Your task to perform on an android device: allow notifications from all sites in the chrome app Image 0: 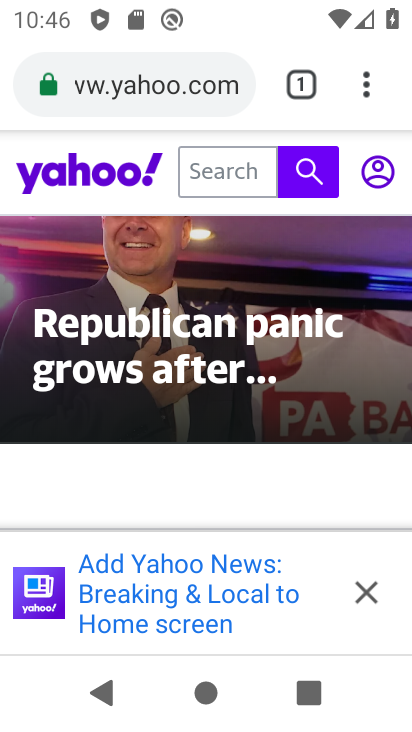
Step 0: press home button
Your task to perform on an android device: allow notifications from all sites in the chrome app Image 1: 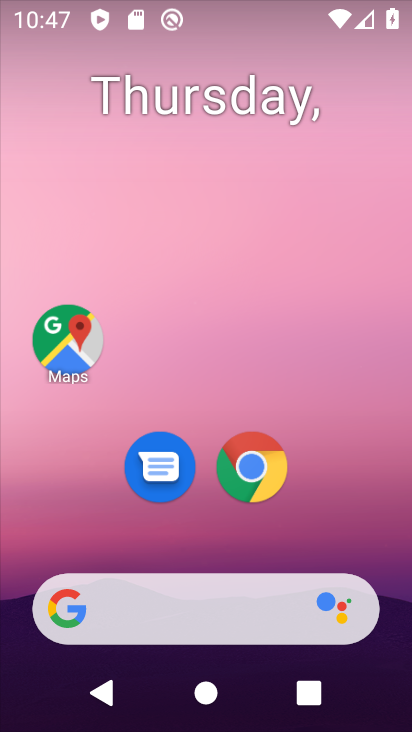
Step 1: click (257, 472)
Your task to perform on an android device: allow notifications from all sites in the chrome app Image 2: 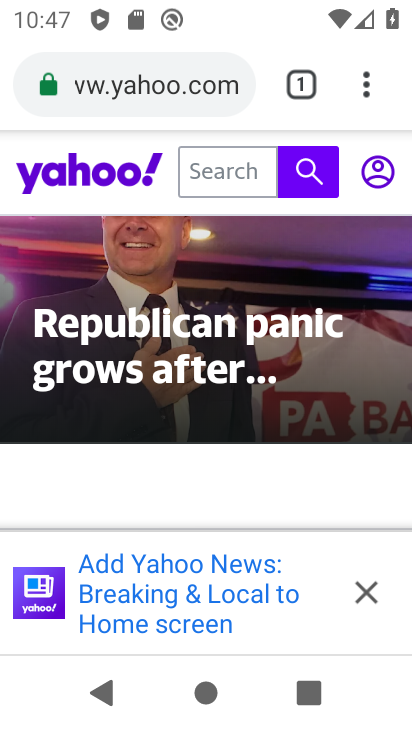
Step 2: click (365, 84)
Your task to perform on an android device: allow notifications from all sites in the chrome app Image 3: 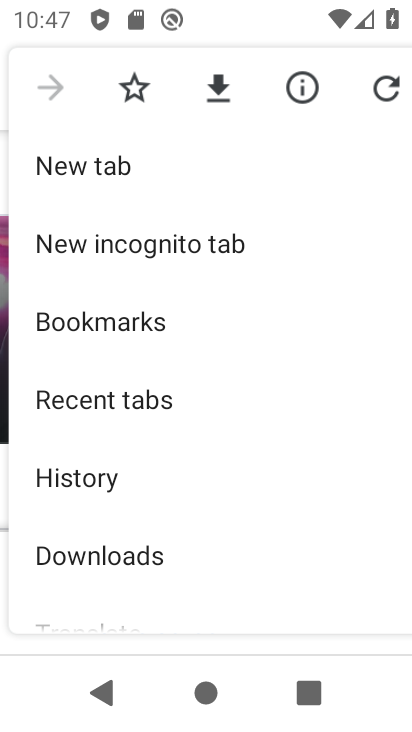
Step 3: drag from (250, 520) to (235, 93)
Your task to perform on an android device: allow notifications from all sites in the chrome app Image 4: 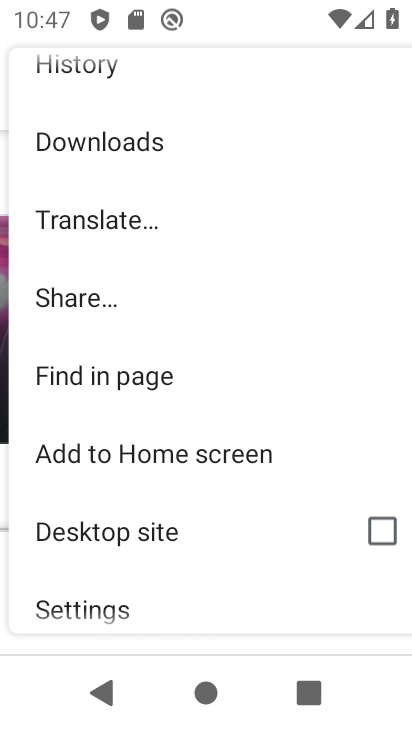
Step 4: drag from (172, 476) to (181, 123)
Your task to perform on an android device: allow notifications from all sites in the chrome app Image 5: 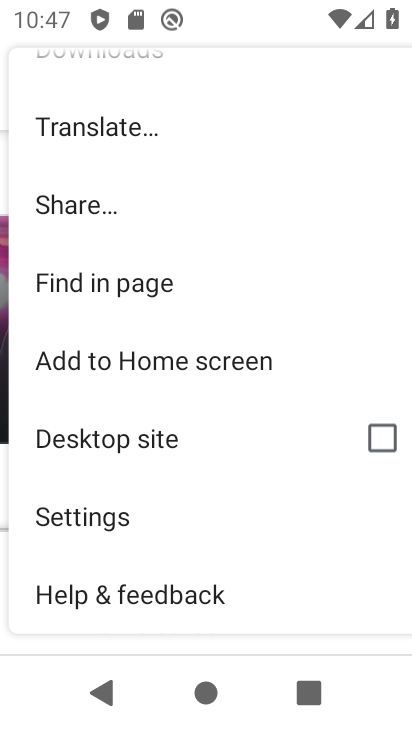
Step 5: click (75, 527)
Your task to perform on an android device: allow notifications from all sites in the chrome app Image 6: 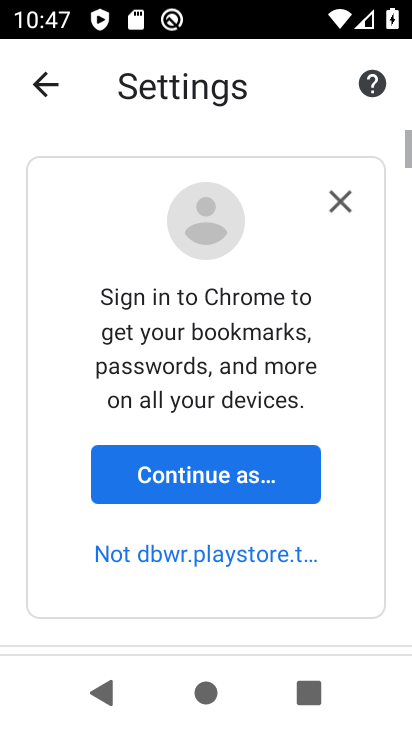
Step 6: drag from (173, 589) to (171, 61)
Your task to perform on an android device: allow notifications from all sites in the chrome app Image 7: 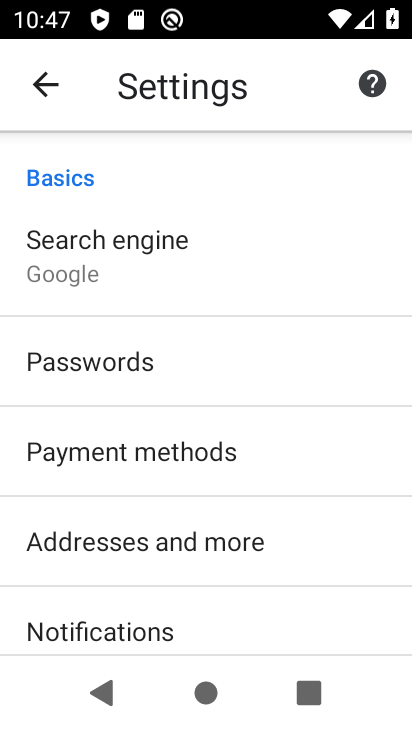
Step 7: drag from (153, 464) to (152, 93)
Your task to perform on an android device: allow notifications from all sites in the chrome app Image 8: 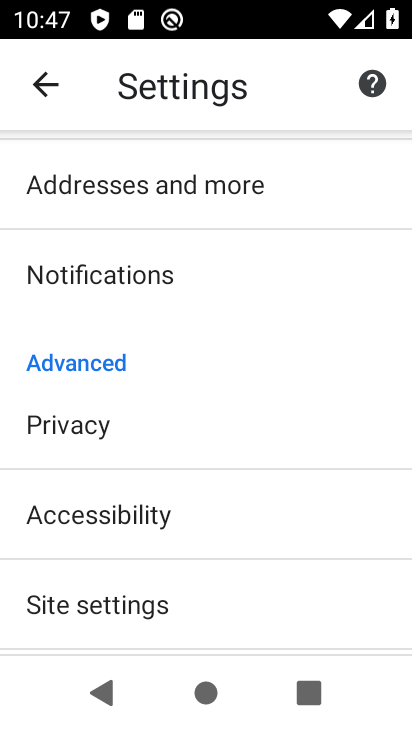
Step 8: drag from (148, 443) to (157, 145)
Your task to perform on an android device: allow notifications from all sites in the chrome app Image 9: 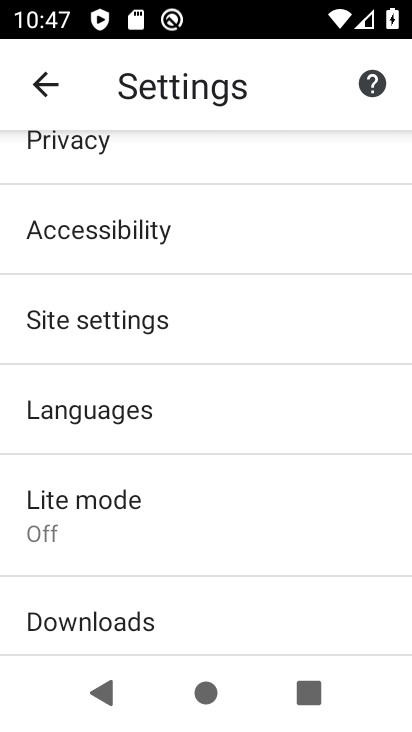
Step 9: click (107, 325)
Your task to perform on an android device: allow notifications from all sites in the chrome app Image 10: 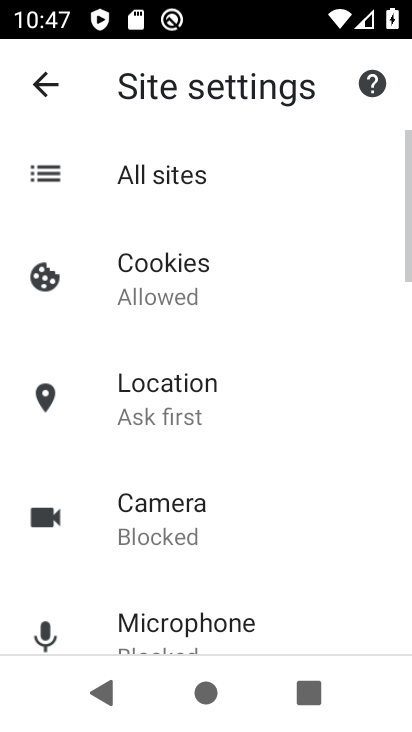
Step 10: drag from (261, 561) to (268, 151)
Your task to perform on an android device: allow notifications from all sites in the chrome app Image 11: 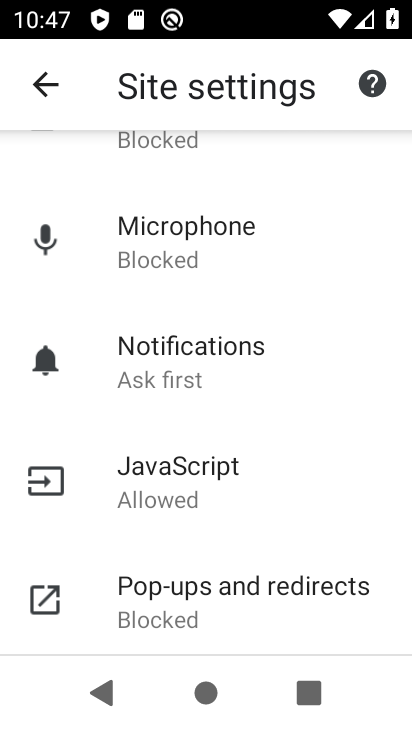
Step 11: click (172, 357)
Your task to perform on an android device: allow notifications from all sites in the chrome app Image 12: 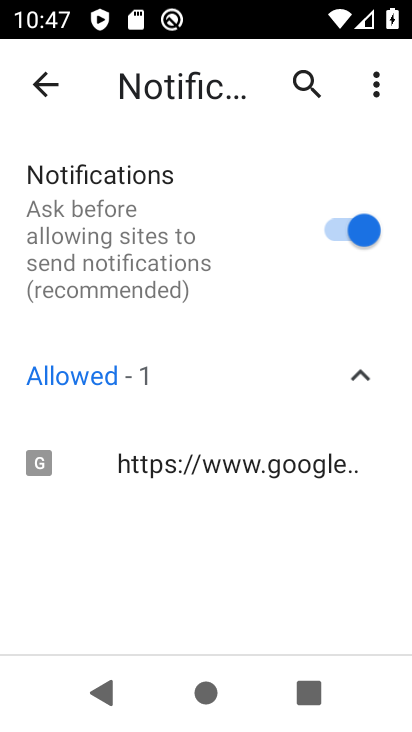
Step 12: task complete